Your task to perform on an android device: turn on location history Image 0: 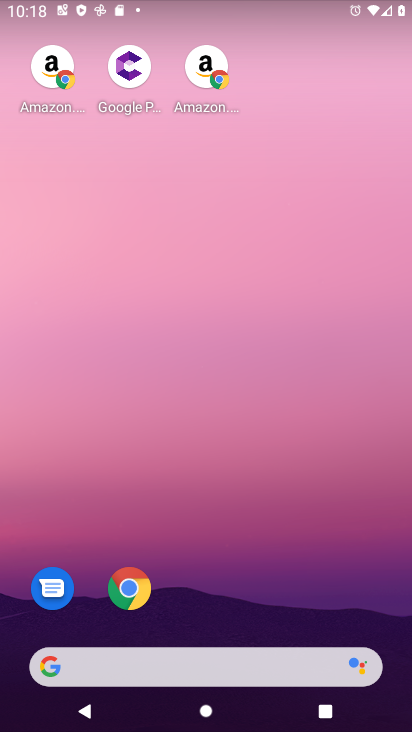
Step 0: drag from (294, 486) to (355, 15)
Your task to perform on an android device: turn on location history Image 1: 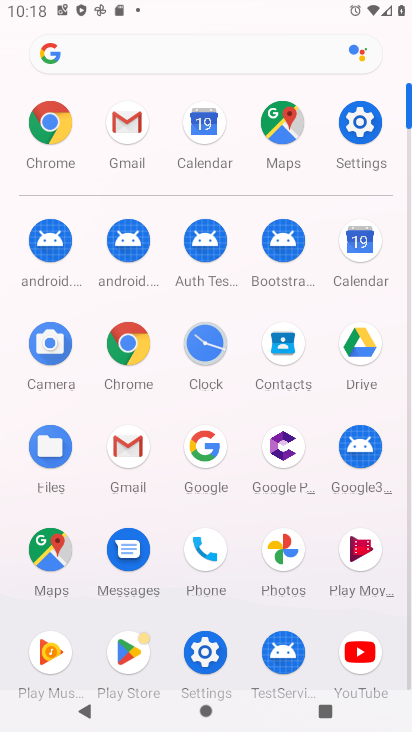
Step 1: click (344, 122)
Your task to perform on an android device: turn on location history Image 2: 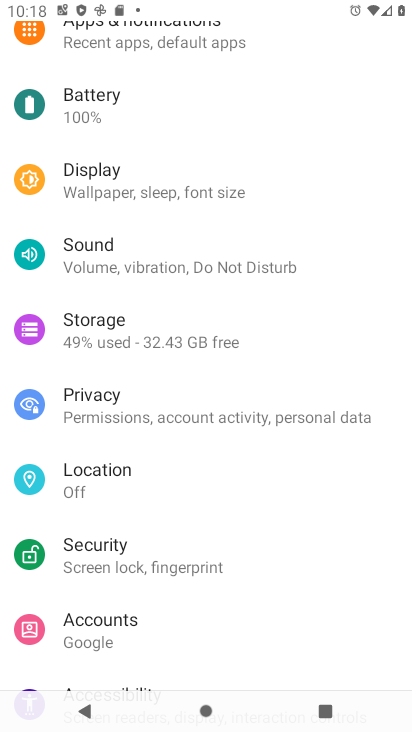
Step 2: click (91, 503)
Your task to perform on an android device: turn on location history Image 3: 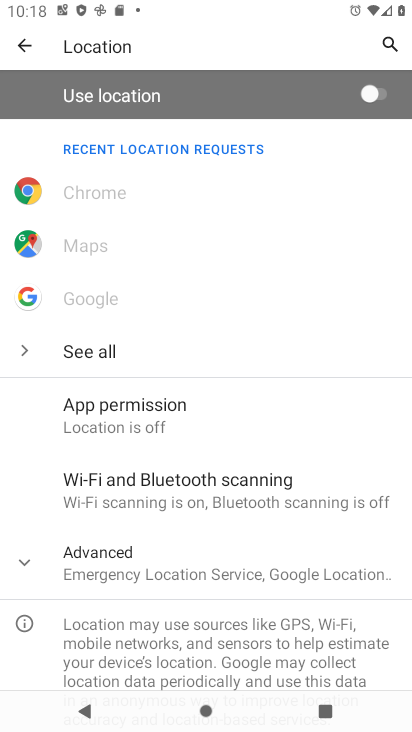
Step 3: click (97, 555)
Your task to perform on an android device: turn on location history Image 4: 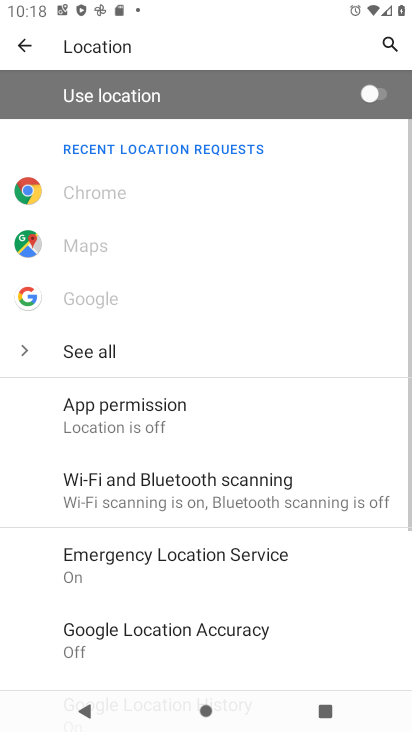
Step 4: drag from (130, 651) to (107, 329)
Your task to perform on an android device: turn on location history Image 5: 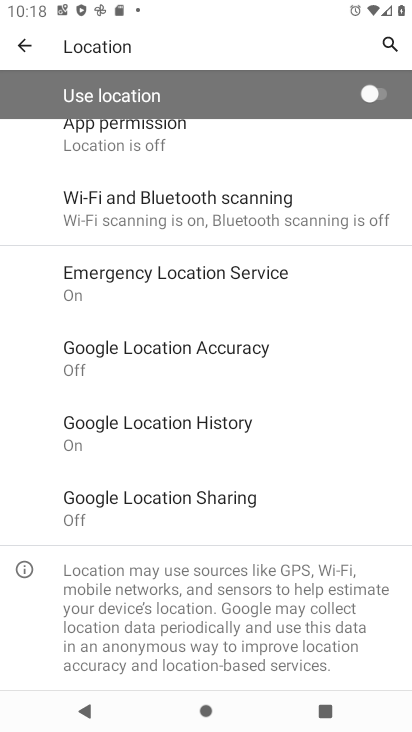
Step 5: click (111, 432)
Your task to perform on an android device: turn on location history Image 6: 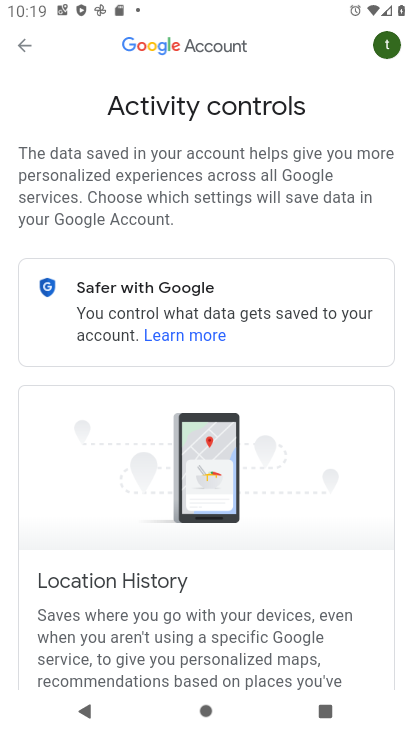
Step 6: task complete